Your task to perform on an android device: Check the weather Image 0: 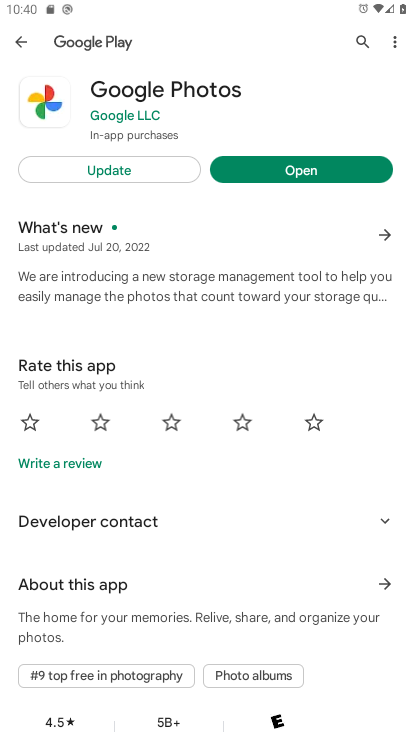
Step 0: press home button
Your task to perform on an android device: Check the weather Image 1: 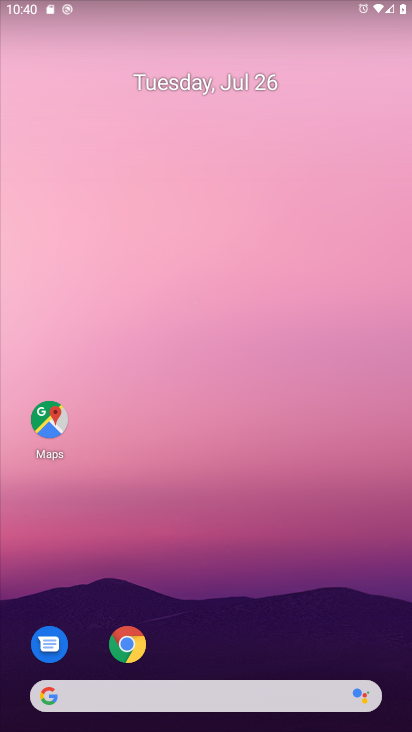
Step 1: click (266, 686)
Your task to perform on an android device: Check the weather Image 2: 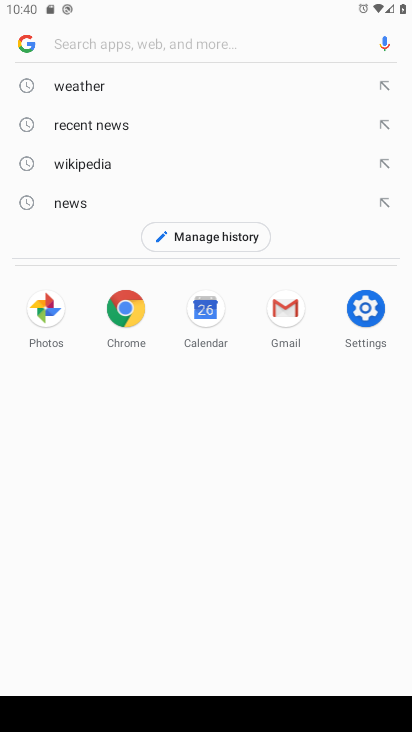
Step 2: click (85, 79)
Your task to perform on an android device: Check the weather Image 3: 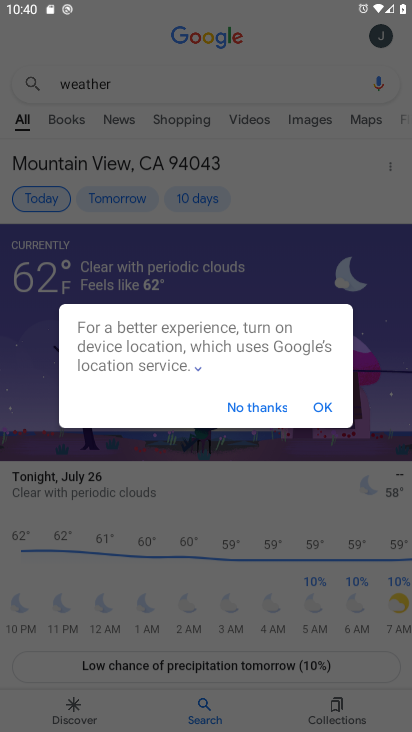
Step 3: click (326, 408)
Your task to perform on an android device: Check the weather Image 4: 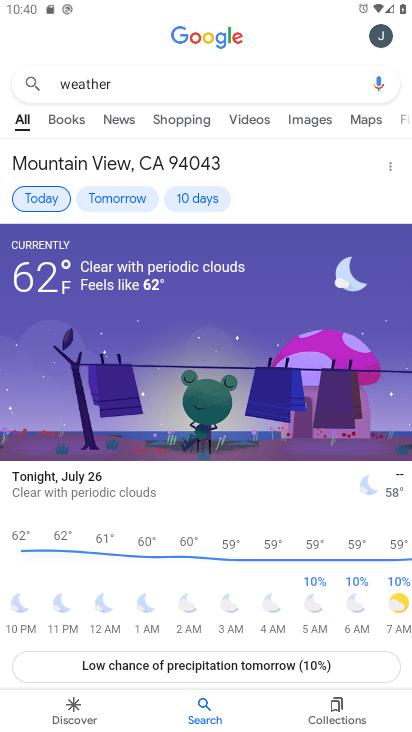
Step 4: task complete